Your task to perform on an android device: Play the last video I watched on Youtube Image 0: 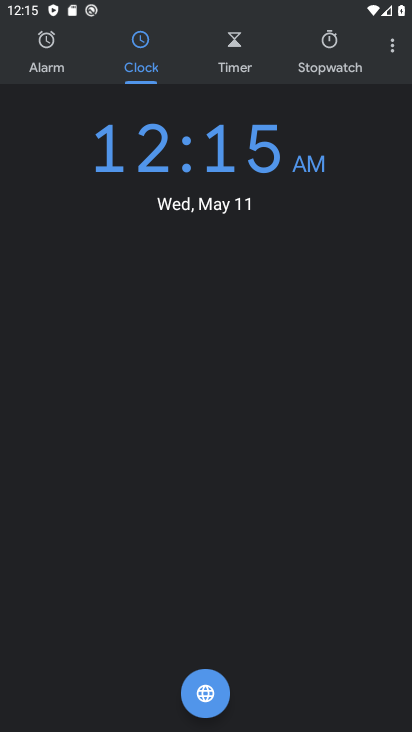
Step 0: press home button
Your task to perform on an android device: Play the last video I watched on Youtube Image 1: 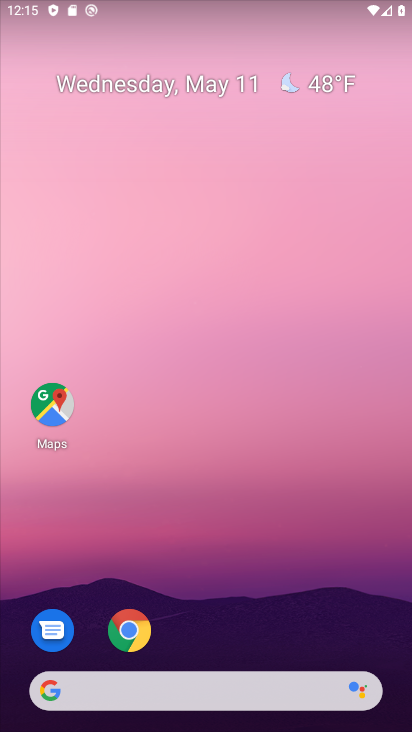
Step 1: drag from (159, 654) to (87, 130)
Your task to perform on an android device: Play the last video I watched on Youtube Image 2: 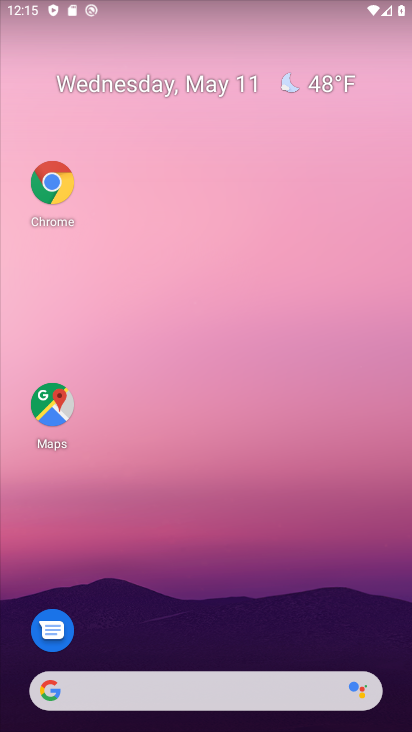
Step 2: drag from (271, 644) to (219, 70)
Your task to perform on an android device: Play the last video I watched on Youtube Image 3: 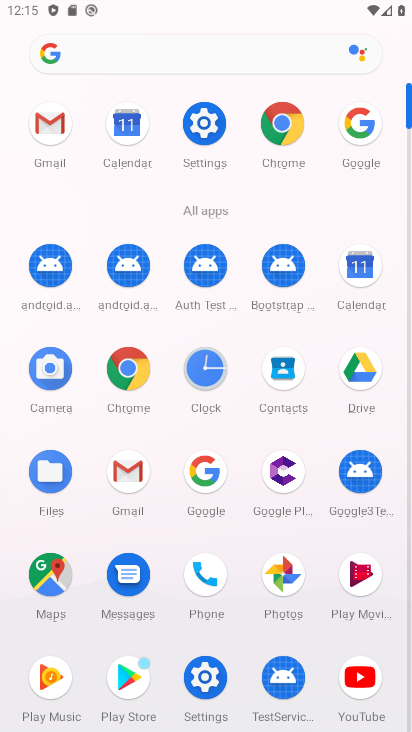
Step 3: click (346, 654)
Your task to perform on an android device: Play the last video I watched on Youtube Image 4: 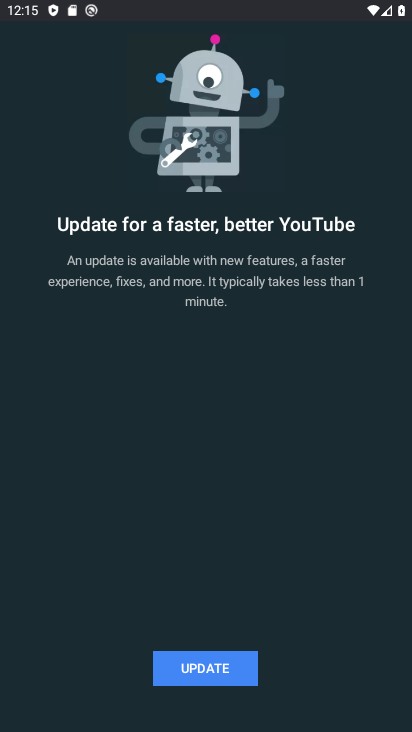
Step 4: click (184, 678)
Your task to perform on an android device: Play the last video I watched on Youtube Image 5: 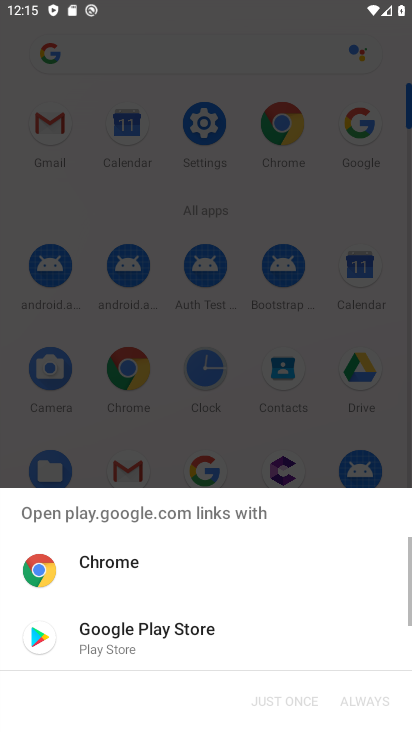
Step 5: click (210, 646)
Your task to perform on an android device: Play the last video I watched on Youtube Image 6: 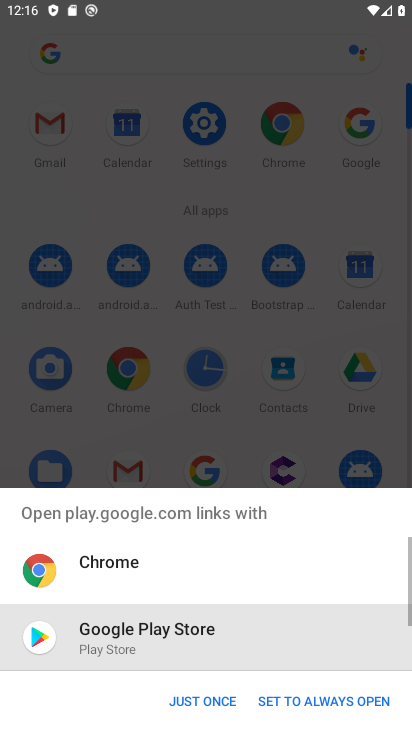
Step 6: click (165, 701)
Your task to perform on an android device: Play the last video I watched on Youtube Image 7: 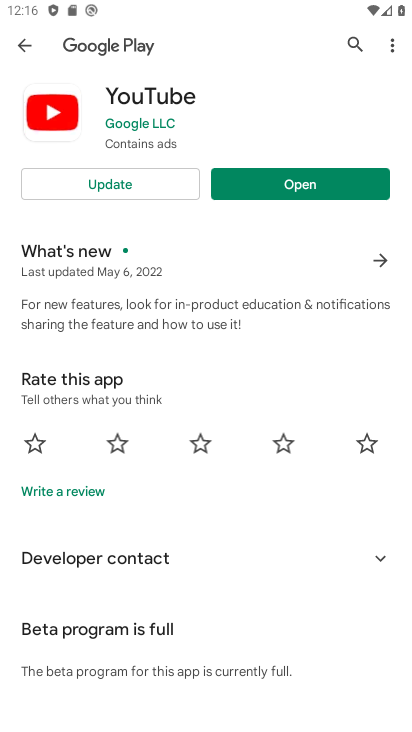
Step 7: click (161, 187)
Your task to perform on an android device: Play the last video I watched on Youtube Image 8: 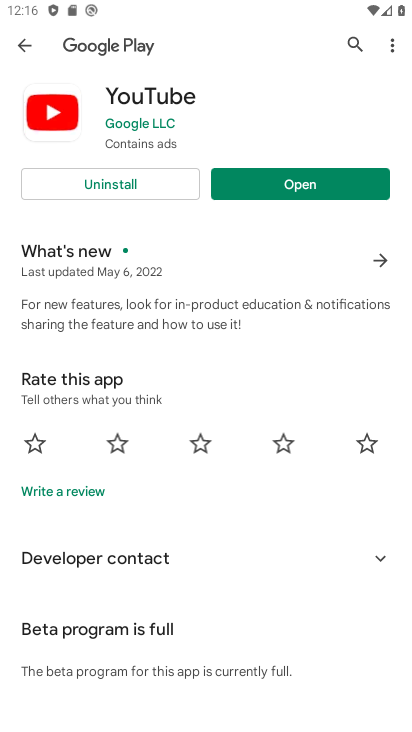
Step 8: click (261, 188)
Your task to perform on an android device: Play the last video I watched on Youtube Image 9: 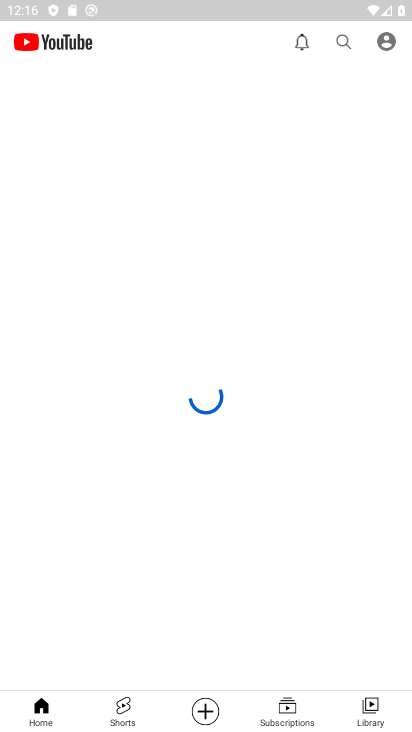
Step 9: click (361, 704)
Your task to perform on an android device: Play the last video I watched on Youtube Image 10: 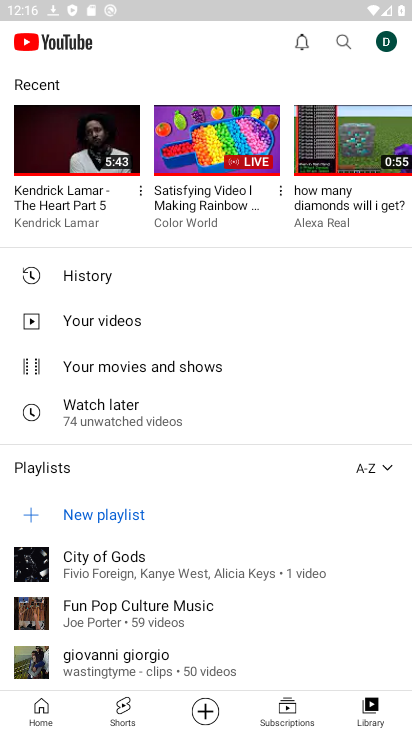
Step 10: click (77, 165)
Your task to perform on an android device: Play the last video I watched on Youtube Image 11: 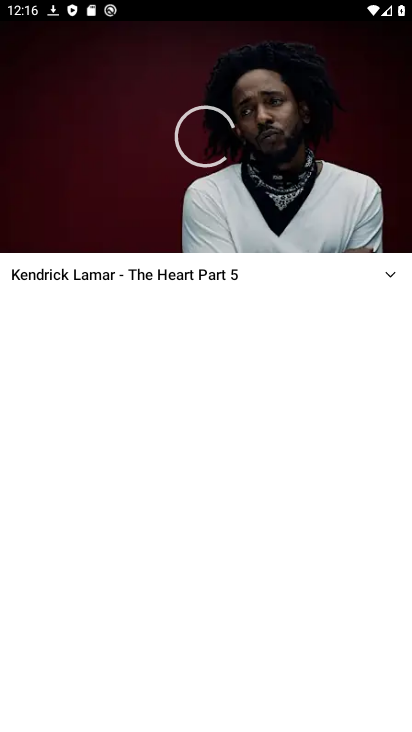
Step 11: click (190, 136)
Your task to perform on an android device: Play the last video I watched on Youtube Image 12: 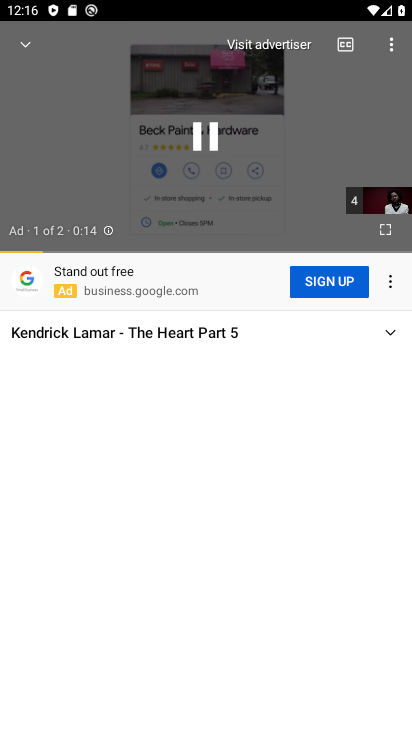
Step 12: click (211, 132)
Your task to perform on an android device: Play the last video I watched on Youtube Image 13: 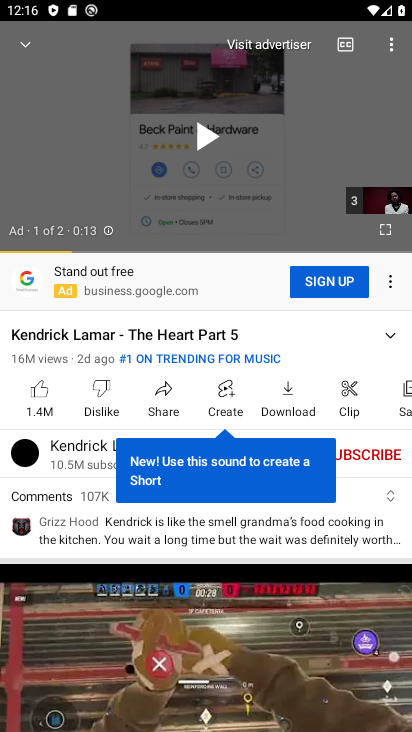
Step 13: task complete